Your task to perform on an android device: turn on sleep mode Image 0: 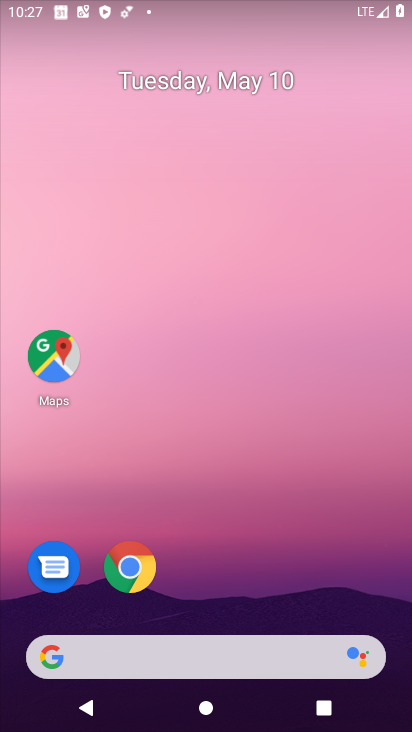
Step 0: press home button
Your task to perform on an android device: turn on sleep mode Image 1: 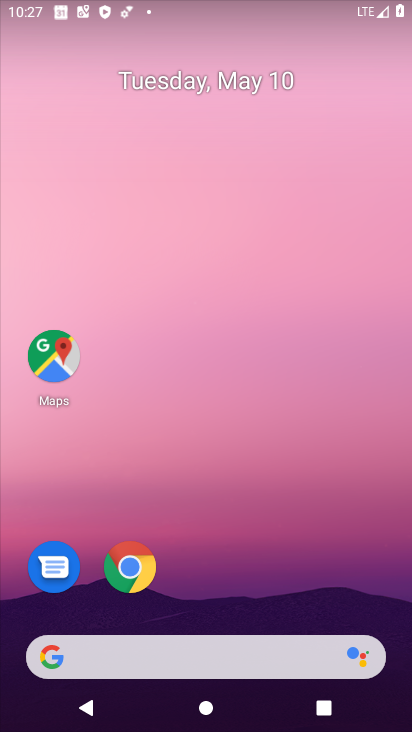
Step 1: drag from (33, 629) to (208, 174)
Your task to perform on an android device: turn on sleep mode Image 2: 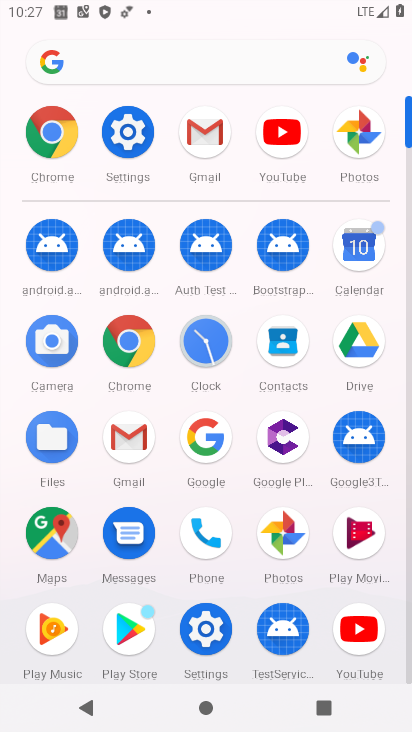
Step 2: click (134, 128)
Your task to perform on an android device: turn on sleep mode Image 3: 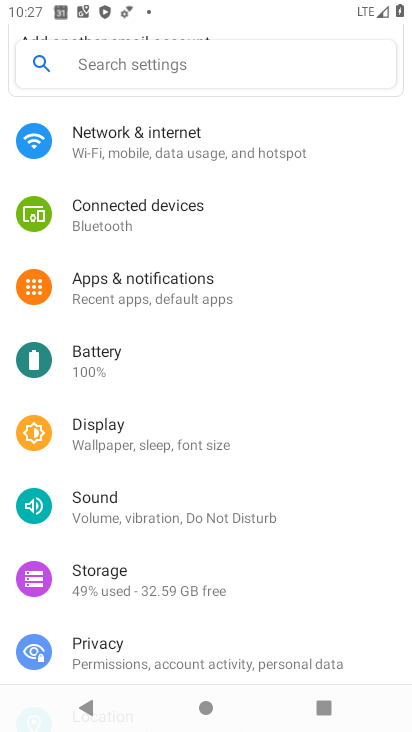
Step 3: click (134, 446)
Your task to perform on an android device: turn on sleep mode Image 4: 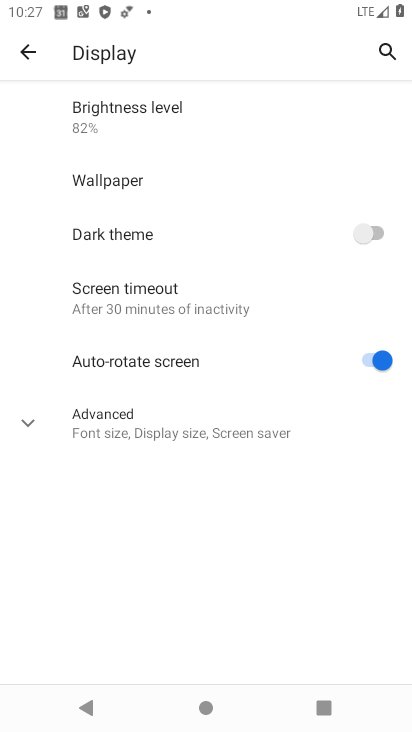
Step 4: task complete